Your task to perform on an android device: Open network settings Image 0: 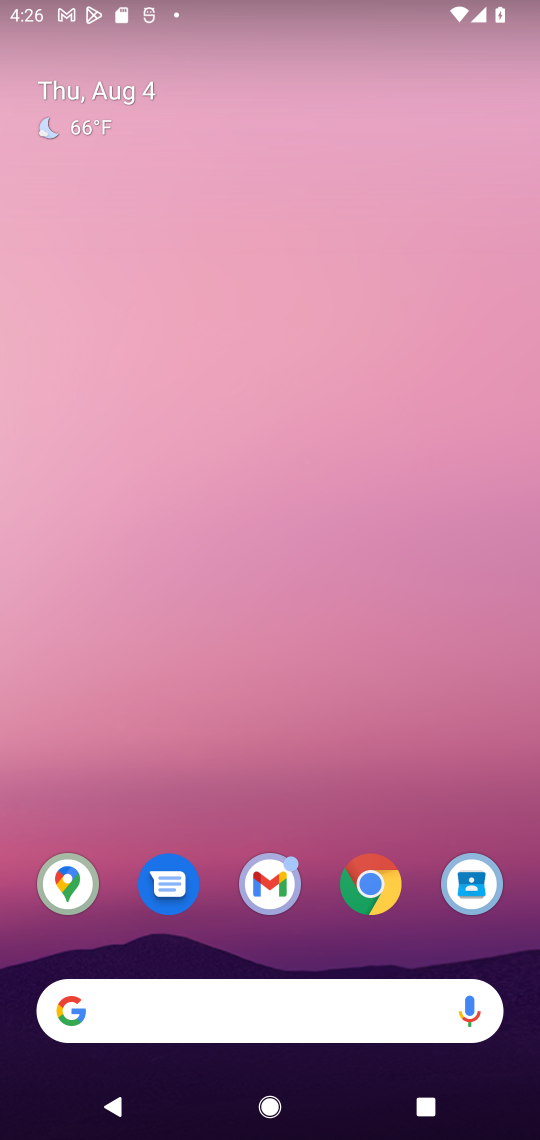
Step 0: drag from (335, 954) to (267, 63)
Your task to perform on an android device: Open network settings Image 1: 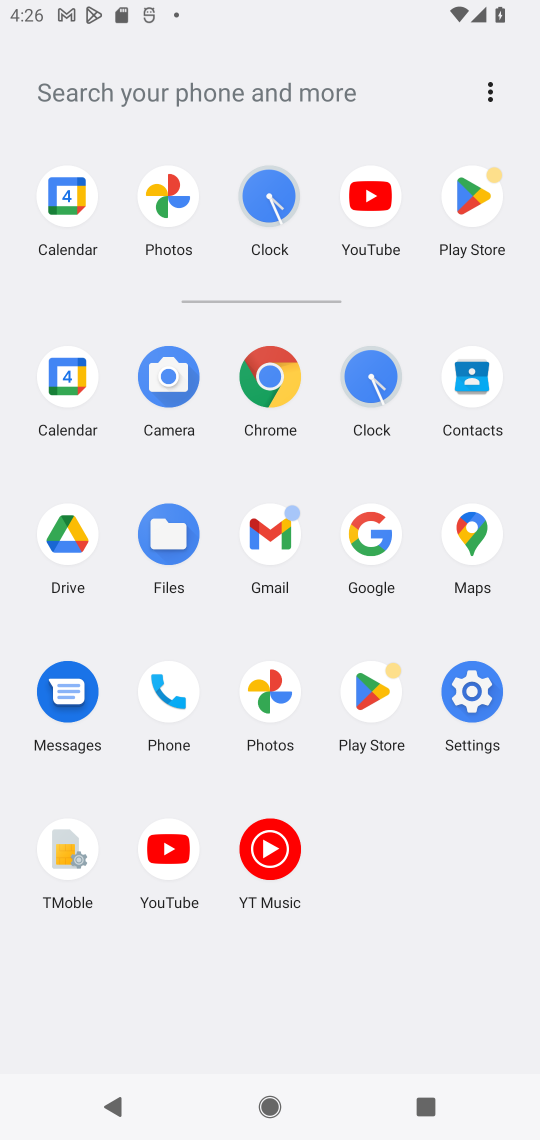
Step 1: click (474, 728)
Your task to perform on an android device: Open network settings Image 2: 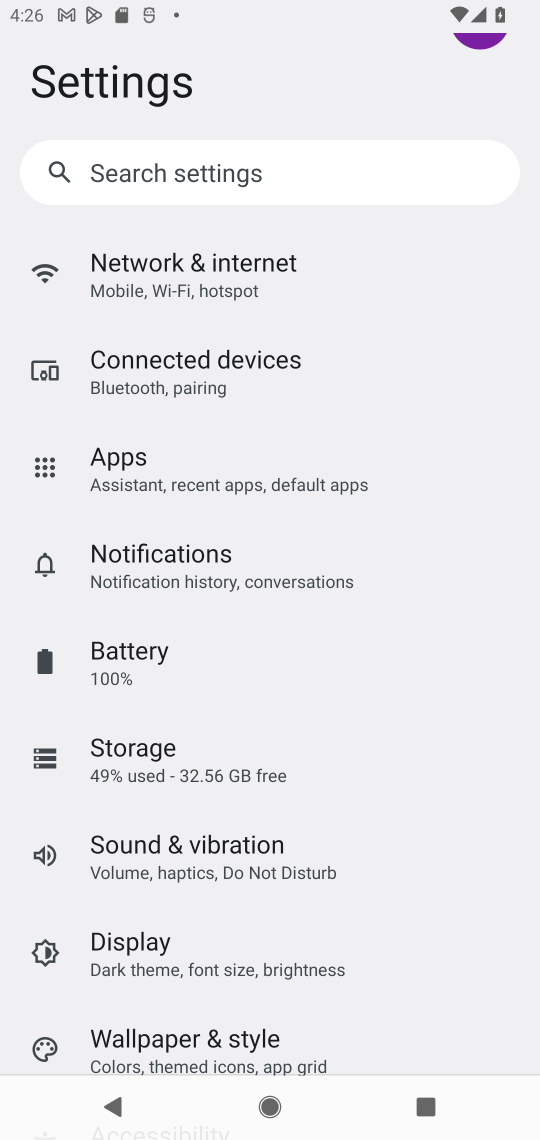
Step 2: click (136, 297)
Your task to perform on an android device: Open network settings Image 3: 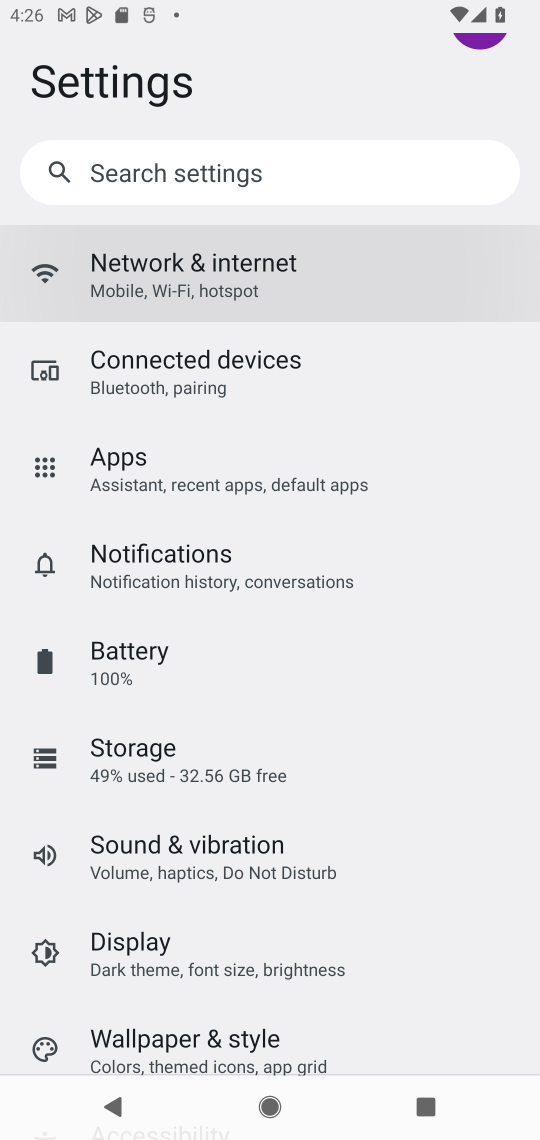
Step 3: task complete